Your task to perform on an android device: Is it going to rain this weekend? Image 0: 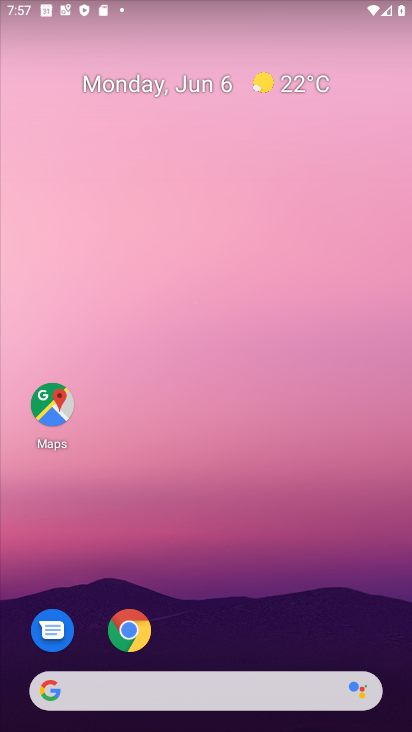
Step 0: click (123, 701)
Your task to perform on an android device: Is it going to rain this weekend? Image 1: 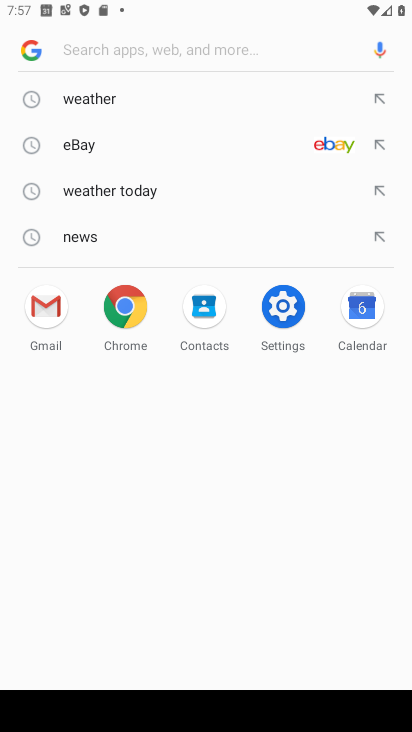
Step 1: type "weather this weekend"
Your task to perform on an android device: Is it going to rain this weekend? Image 2: 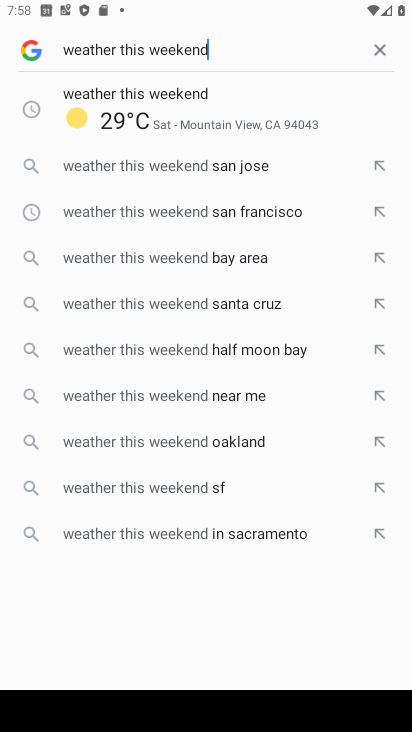
Step 2: click (191, 125)
Your task to perform on an android device: Is it going to rain this weekend? Image 3: 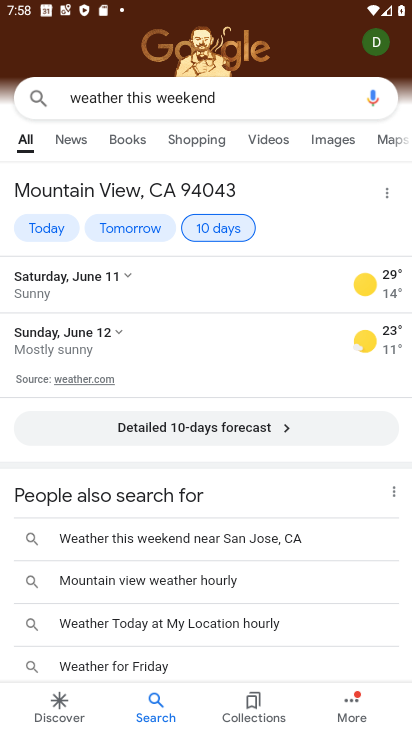
Step 3: click (195, 435)
Your task to perform on an android device: Is it going to rain this weekend? Image 4: 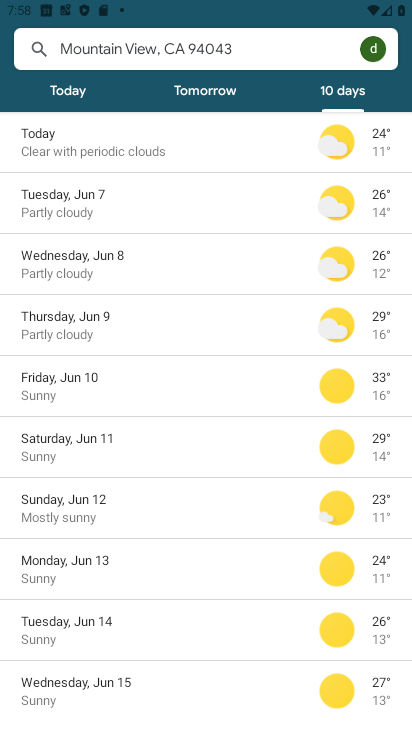
Step 4: click (95, 517)
Your task to perform on an android device: Is it going to rain this weekend? Image 5: 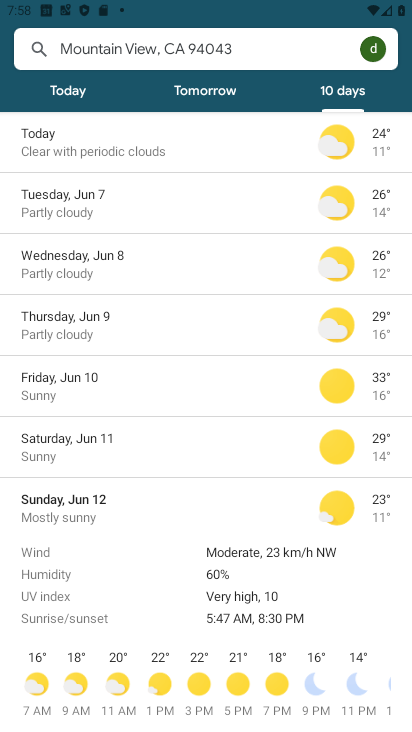
Step 5: drag from (105, 565) to (128, 312)
Your task to perform on an android device: Is it going to rain this weekend? Image 6: 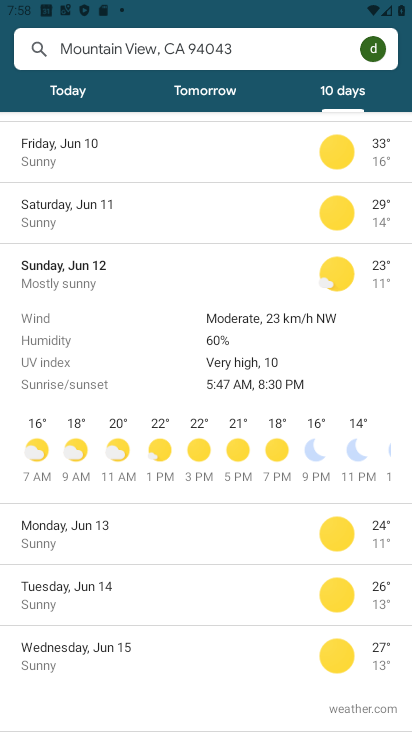
Step 6: click (86, 225)
Your task to perform on an android device: Is it going to rain this weekend? Image 7: 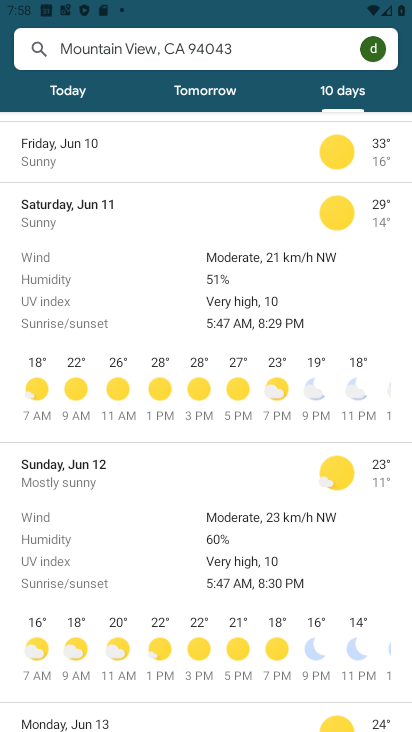
Step 7: task complete